Your task to perform on an android device: move an email to a new category in the gmail app Image 0: 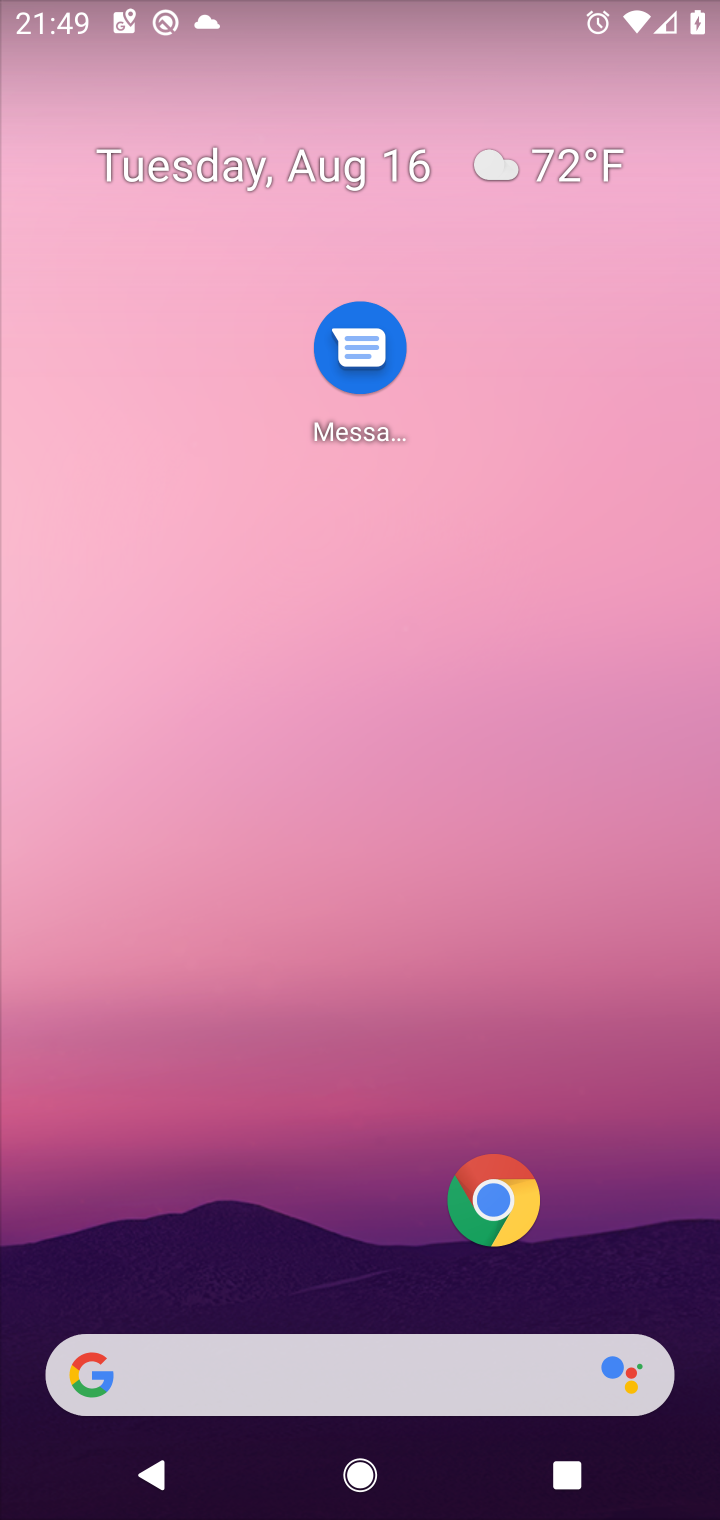
Step 0: drag from (156, 1112) to (455, 362)
Your task to perform on an android device: move an email to a new category in the gmail app Image 1: 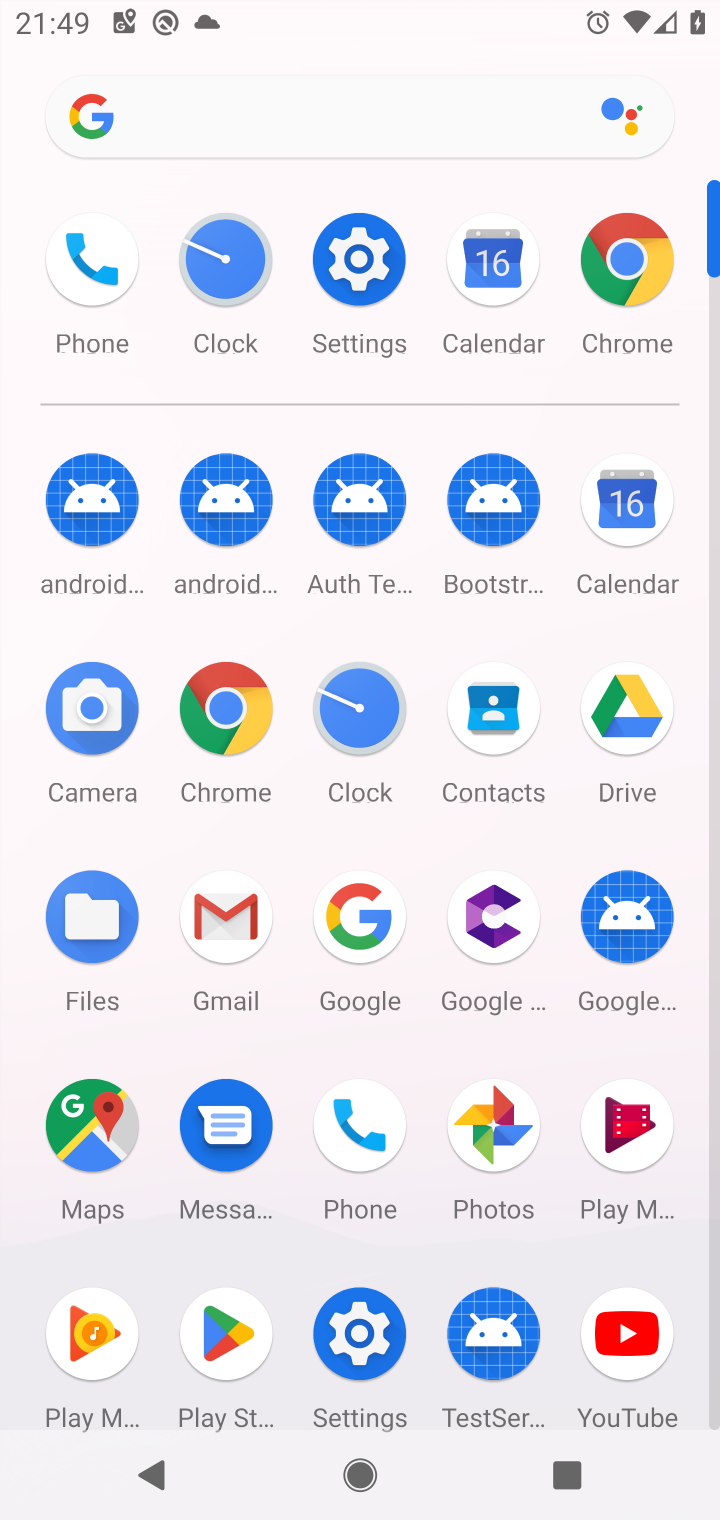
Step 1: click (240, 915)
Your task to perform on an android device: move an email to a new category in the gmail app Image 2: 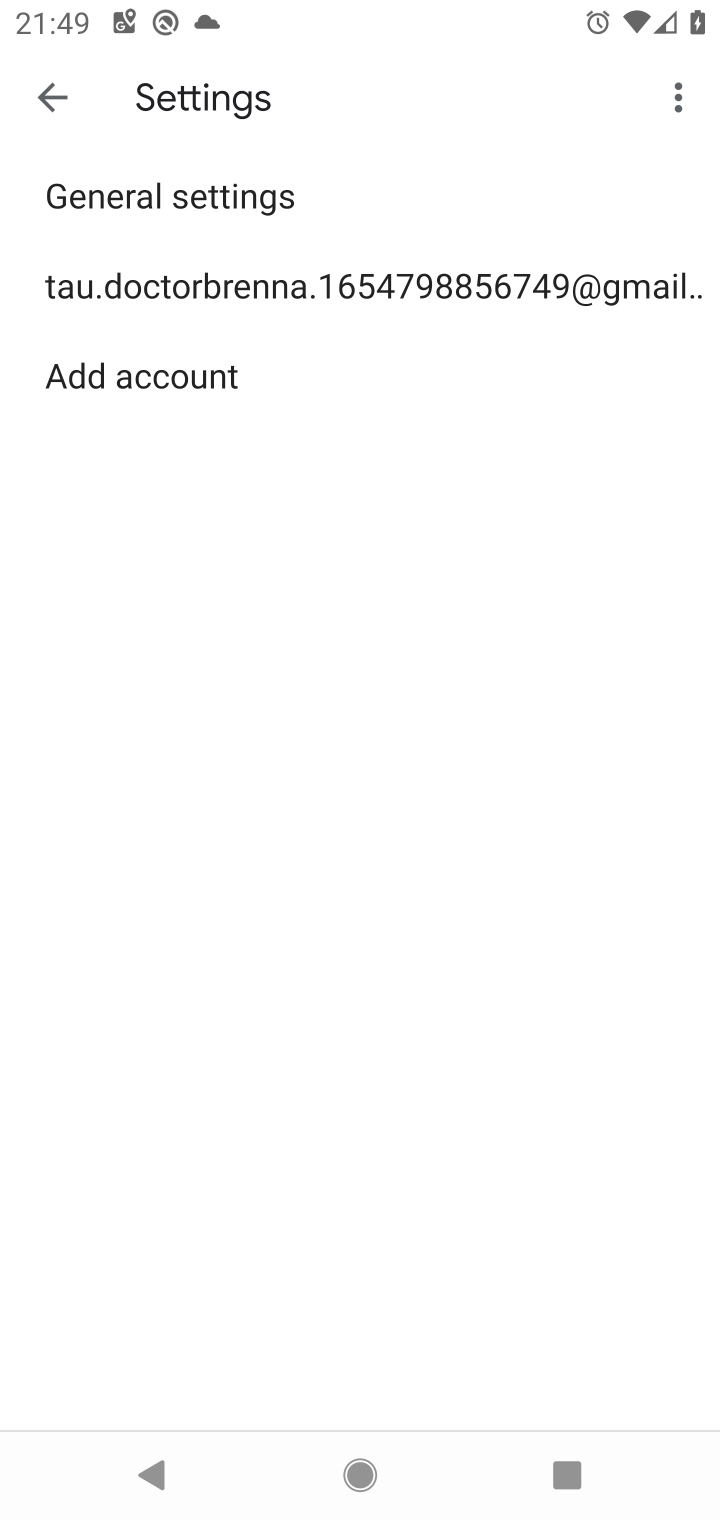
Step 2: click (31, 85)
Your task to perform on an android device: move an email to a new category in the gmail app Image 3: 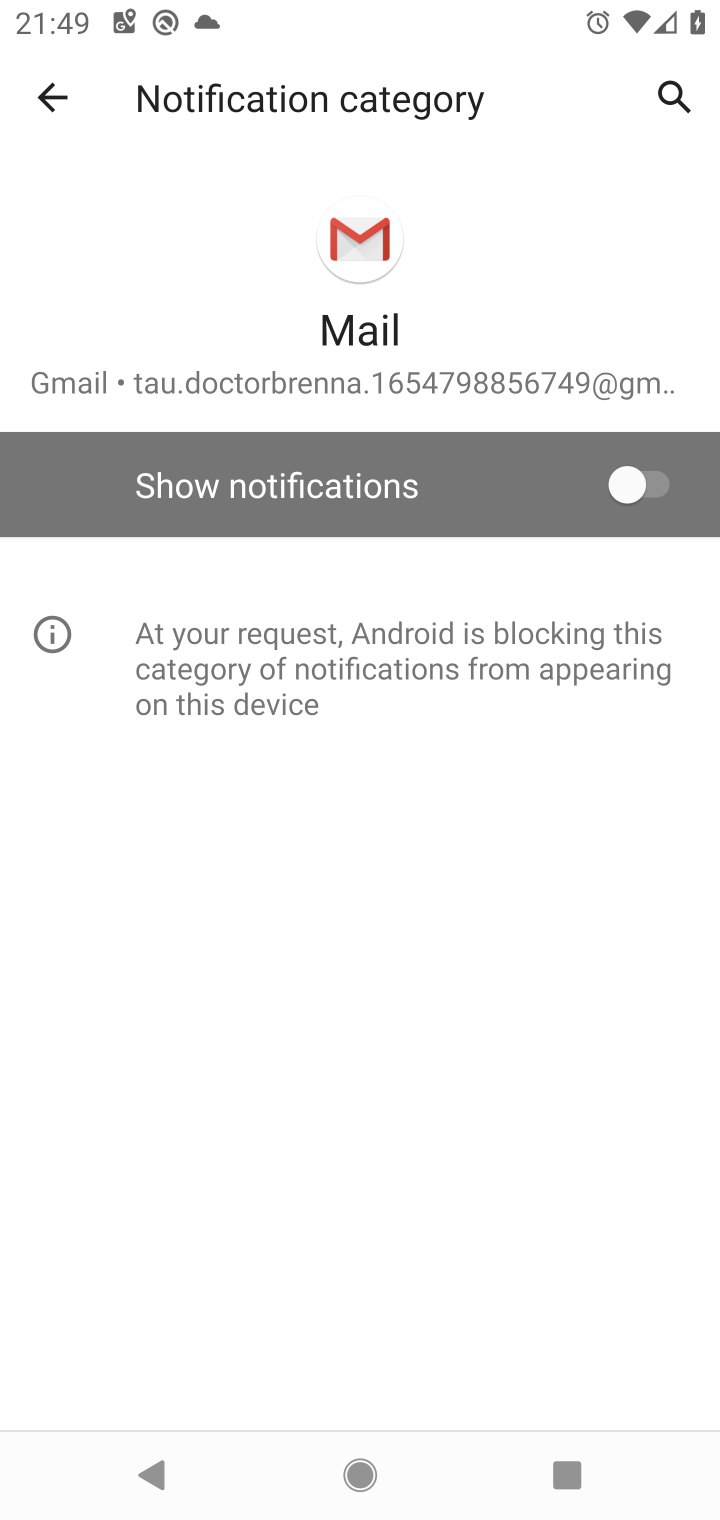
Step 3: click (42, 92)
Your task to perform on an android device: move an email to a new category in the gmail app Image 4: 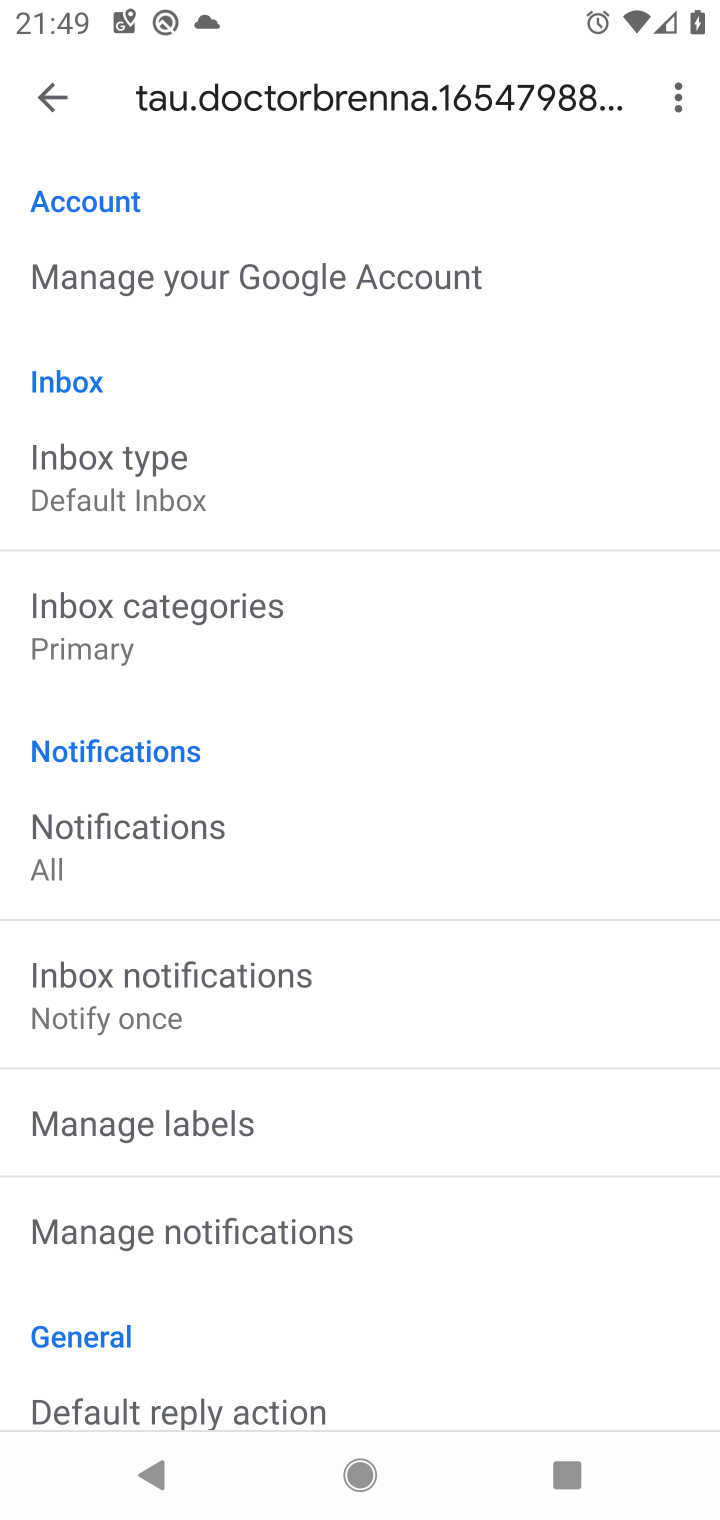
Step 4: click (43, 92)
Your task to perform on an android device: move an email to a new category in the gmail app Image 5: 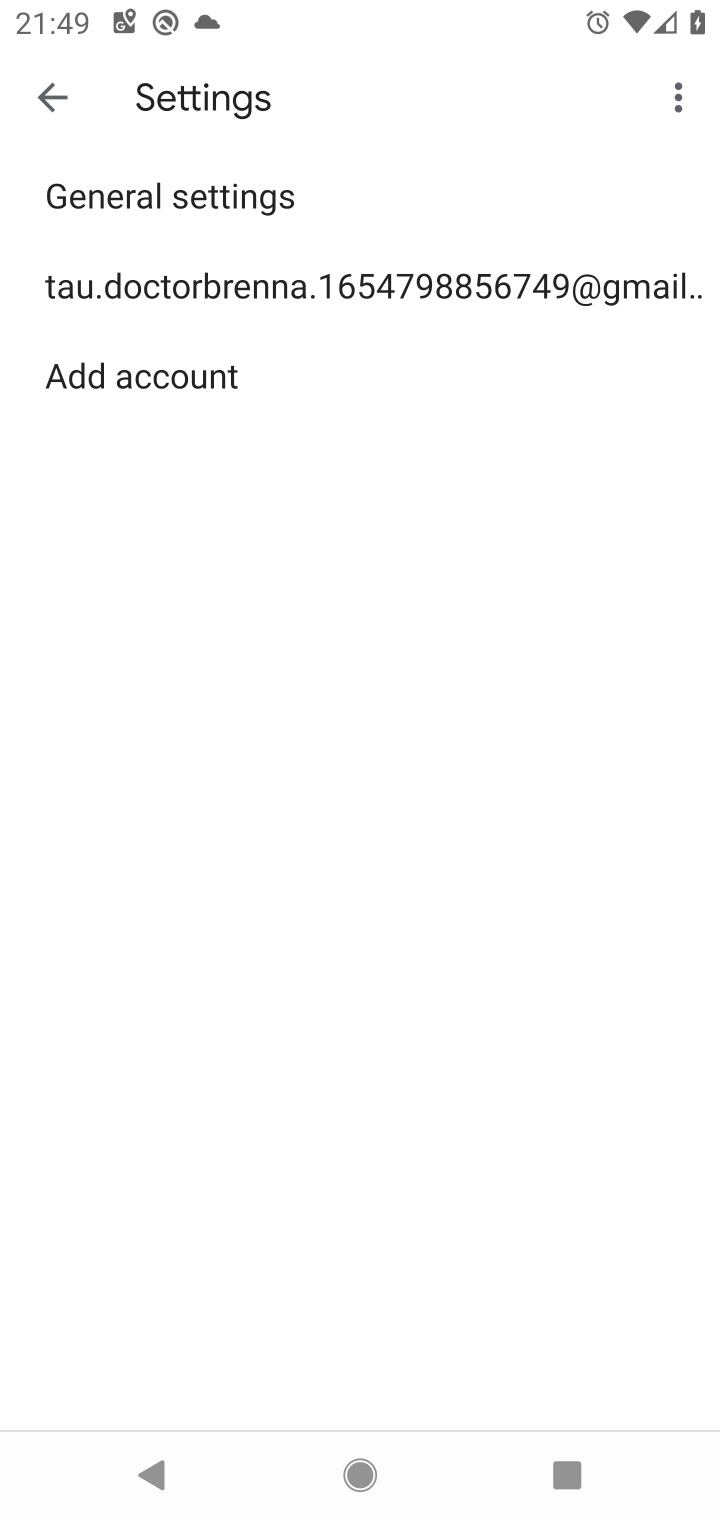
Step 5: click (43, 92)
Your task to perform on an android device: move an email to a new category in the gmail app Image 6: 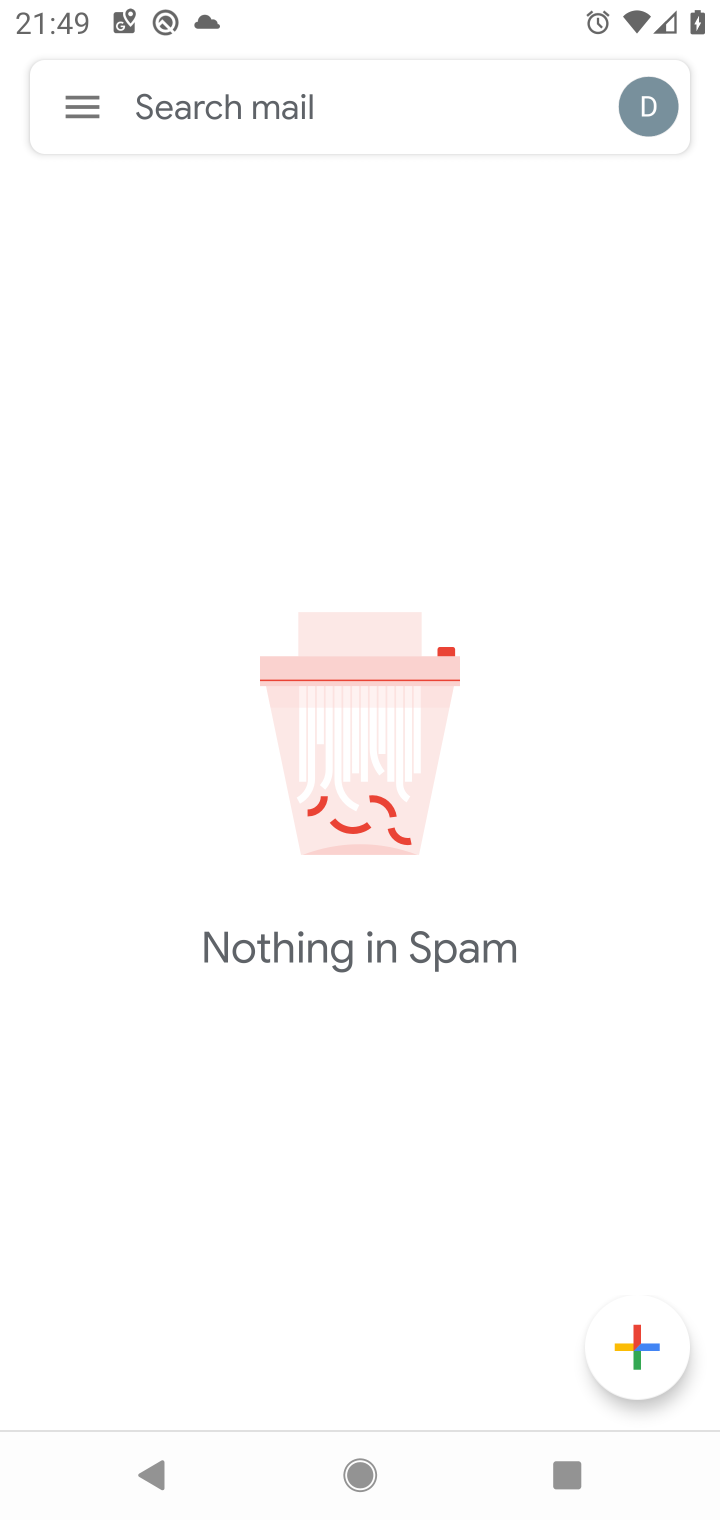
Step 6: click (96, 104)
Your task to perform on an android device: move an email to a new category in the gmail app Image 7: 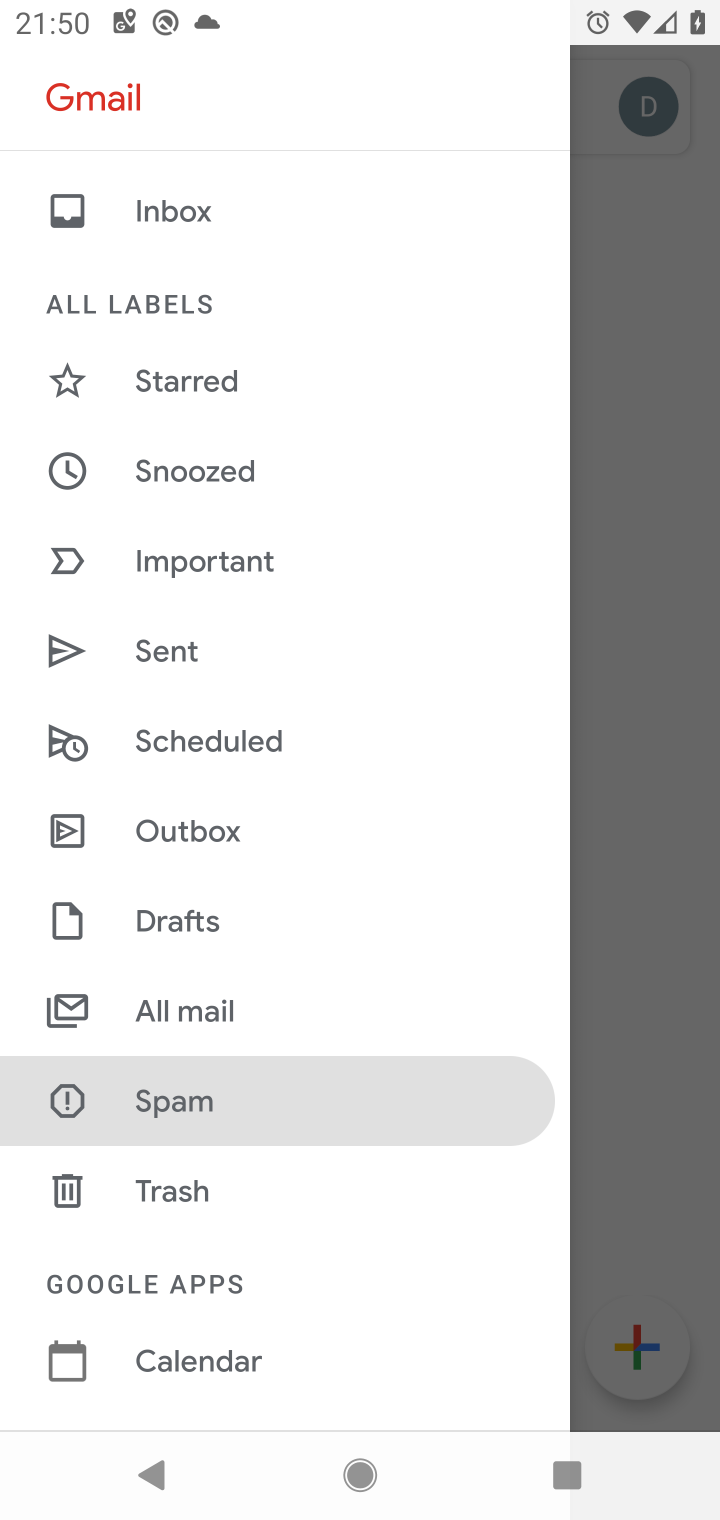
Step 7: click (193, 205)
Your task to perform on an android device: move an email to a new category in the gmail app Image 8: 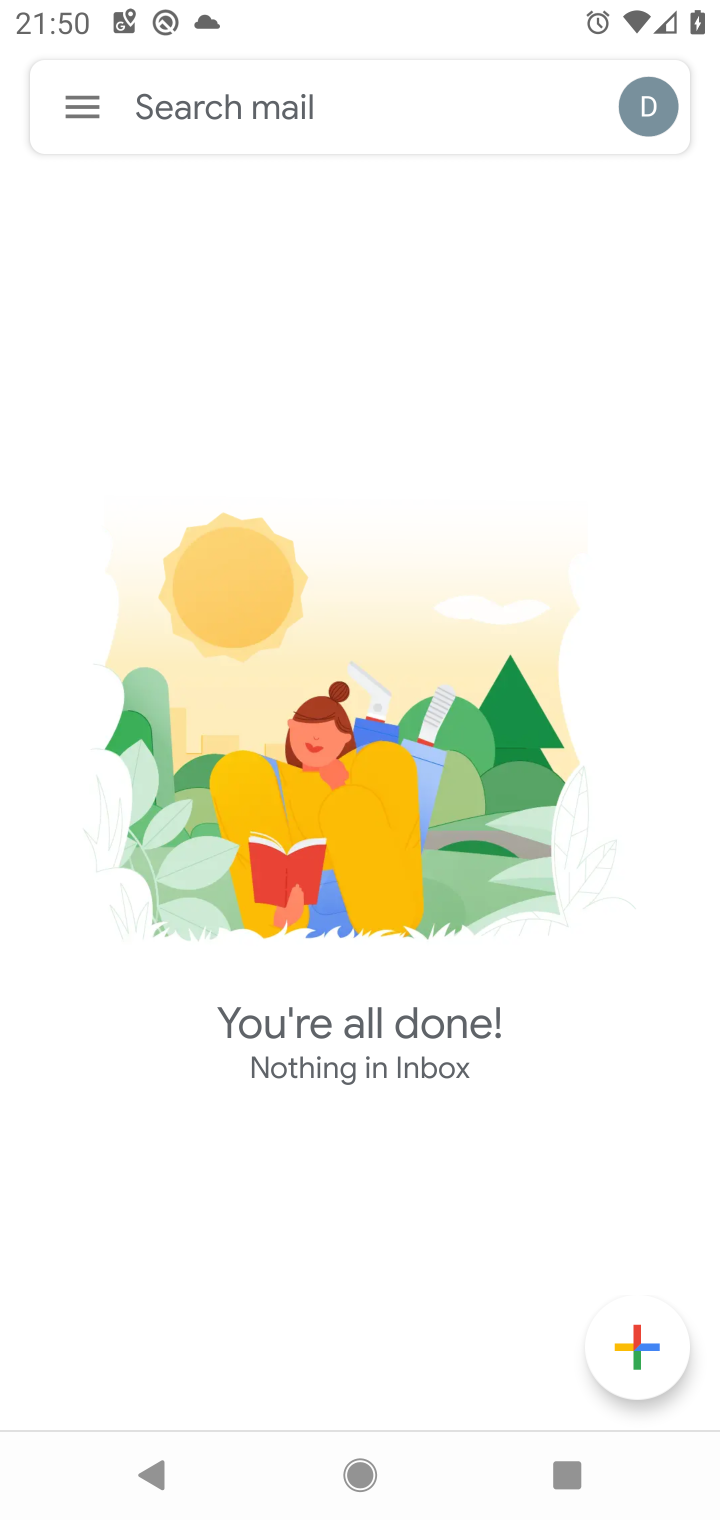
Step 8: task complete